Your task to perform on an android device: Add jbl charge 4 to the cart on ebay.com Image 0: 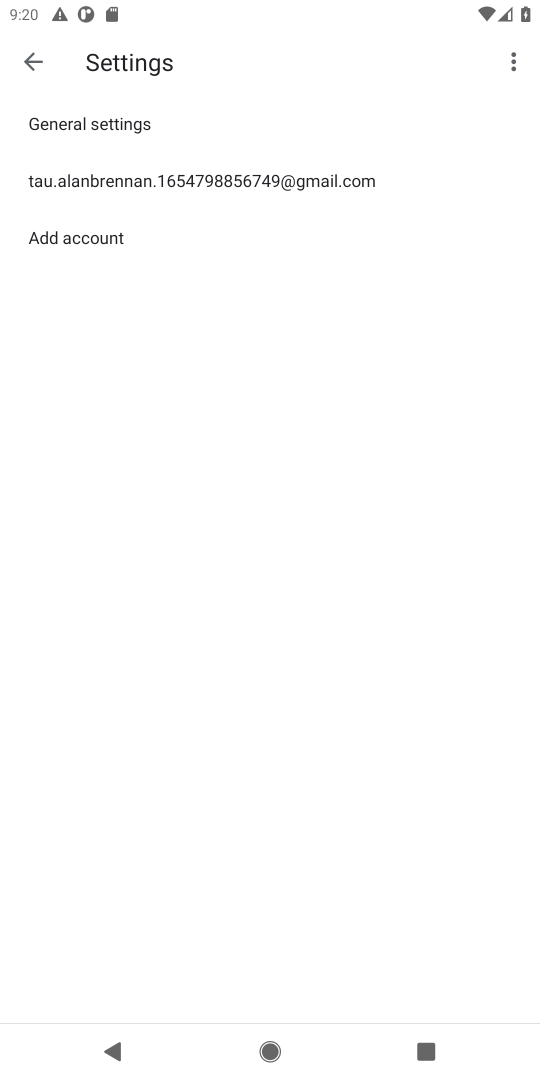
Step 0: press home button
Your task to perform on an android device: Add jbl charge 4 to the cart on ebay.com Image 1: 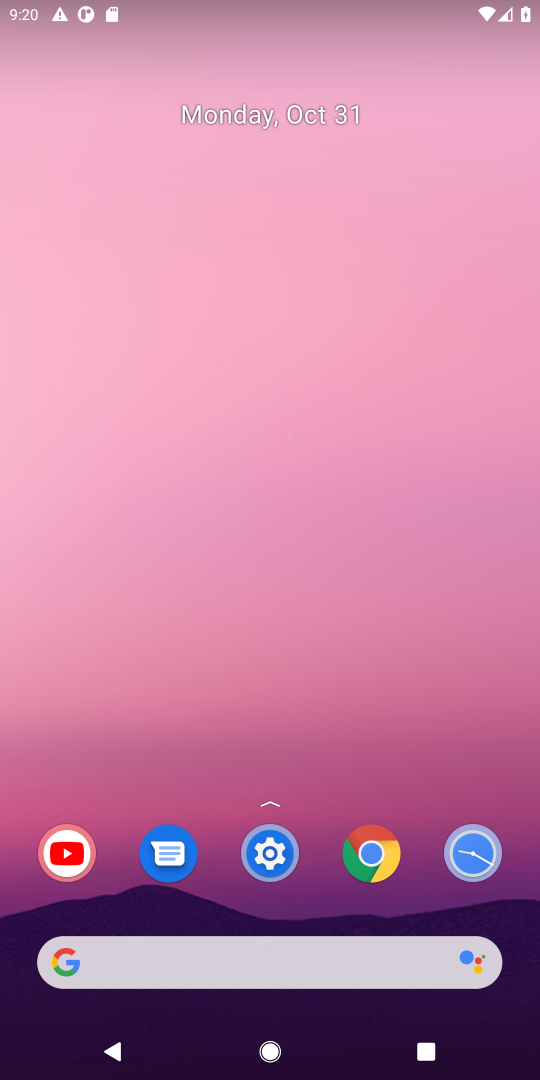
Step 1: click (283, 952)
Your task to perform on an android device: Add jbl charge 4 to the cart on ebay.com Image 2: 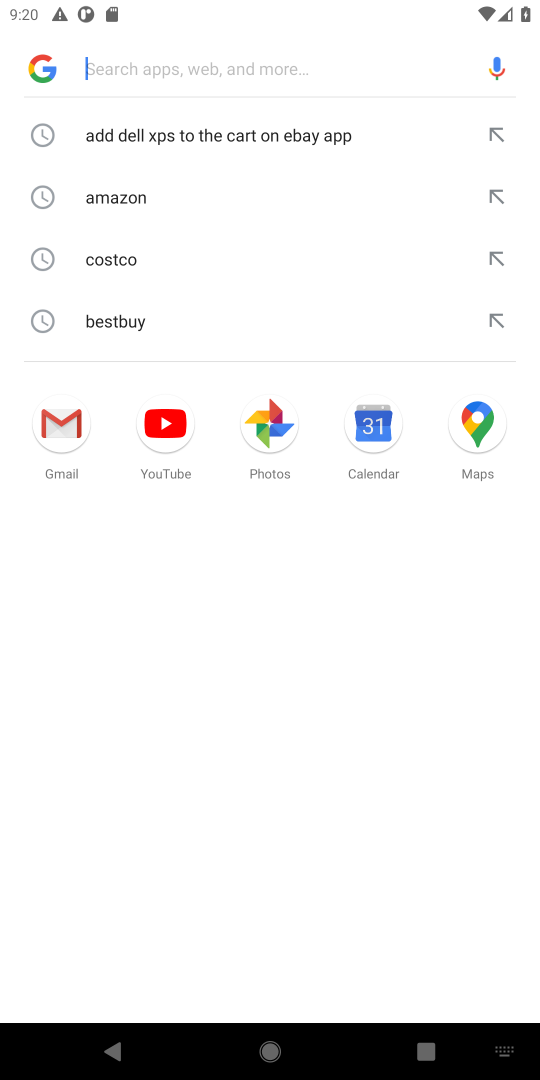
Step 2: type "ebay"
Your task to perform on an android device: Add jbl charge 4 to the cart on ebay.com Image 3: 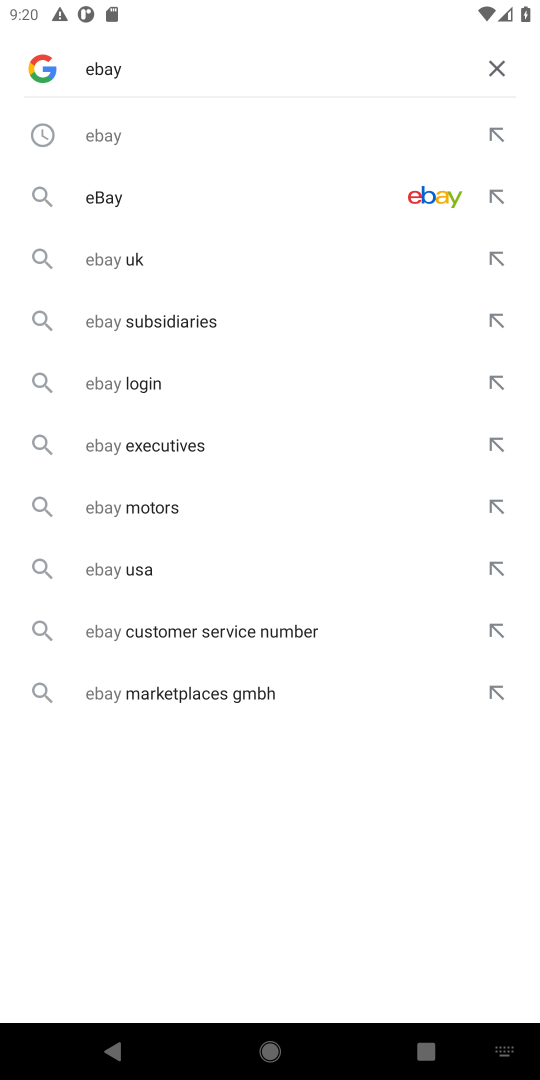
Step 3: click (113, 134)
Your task to perform on an android device: Add jbl charge 4 to the cart on ebay.com Image 4: 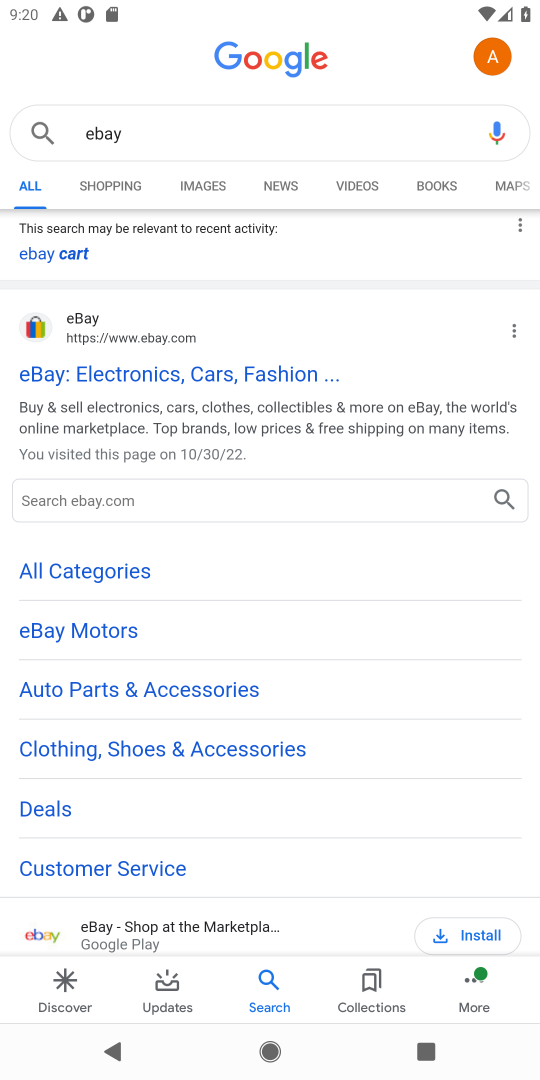
Step 4: click (93, 368)
Your task to perform on an android device: Add jbl charge 4 to the cart on ebay.com Image 5: 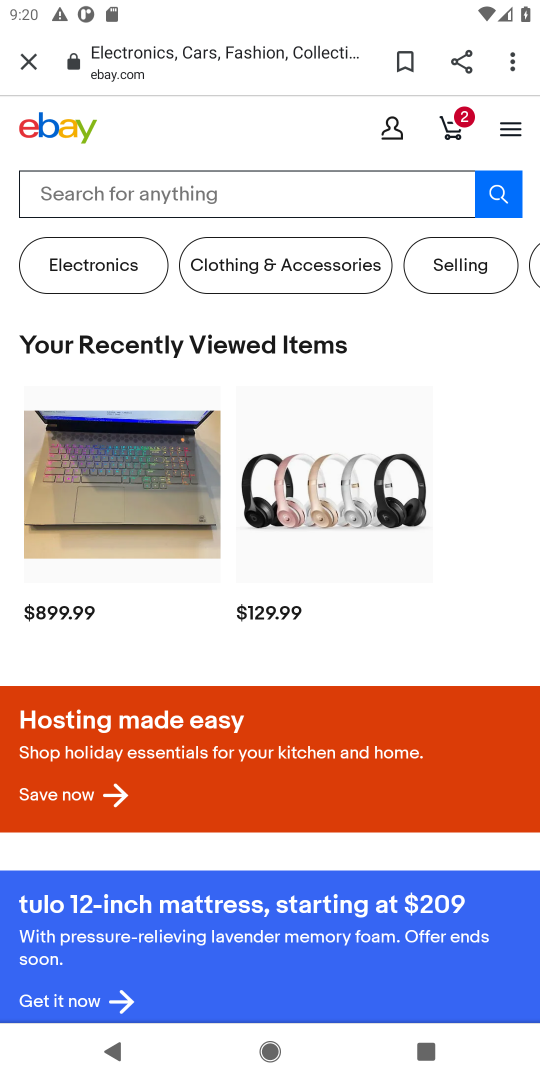
Step 5: click (170, 185)
Your task to perform on an android device: Add jbl charge 4 to the cart on ebay.com Image 6: 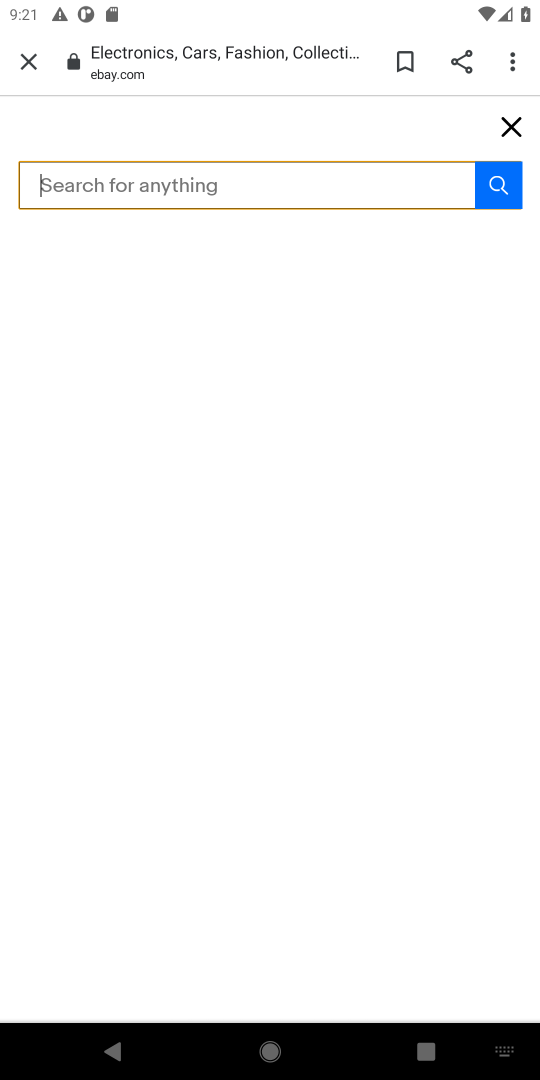
Step 6: type "jbl charger 4"
Your task to perform on an android device: Add jbl charge 4 to the cart on ebay.com Image 7: 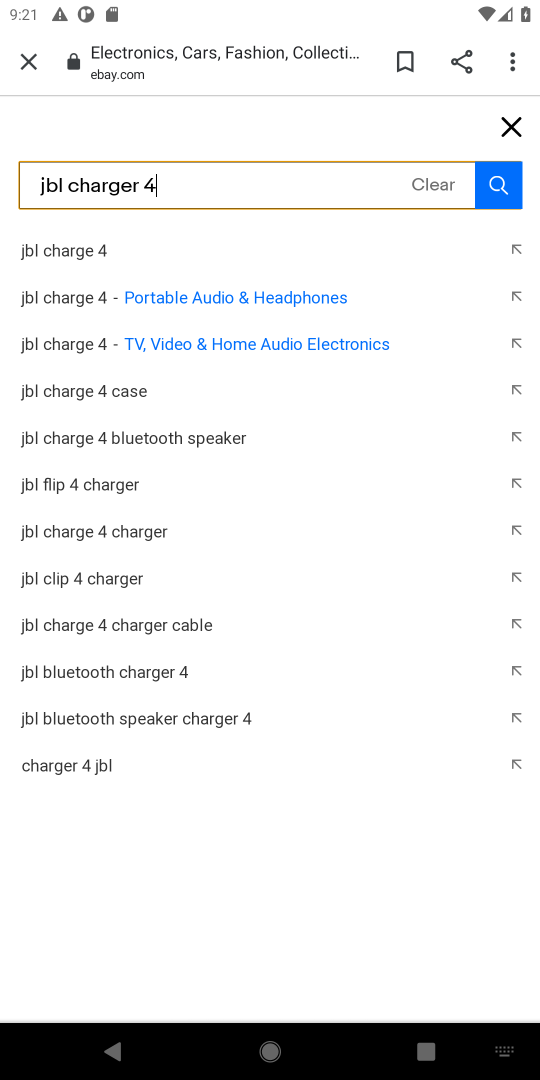
Step 7: click (101, 244)
Your task to perform on an android device: Add jbl charge 4 to the cart on ebay.com Image 8: 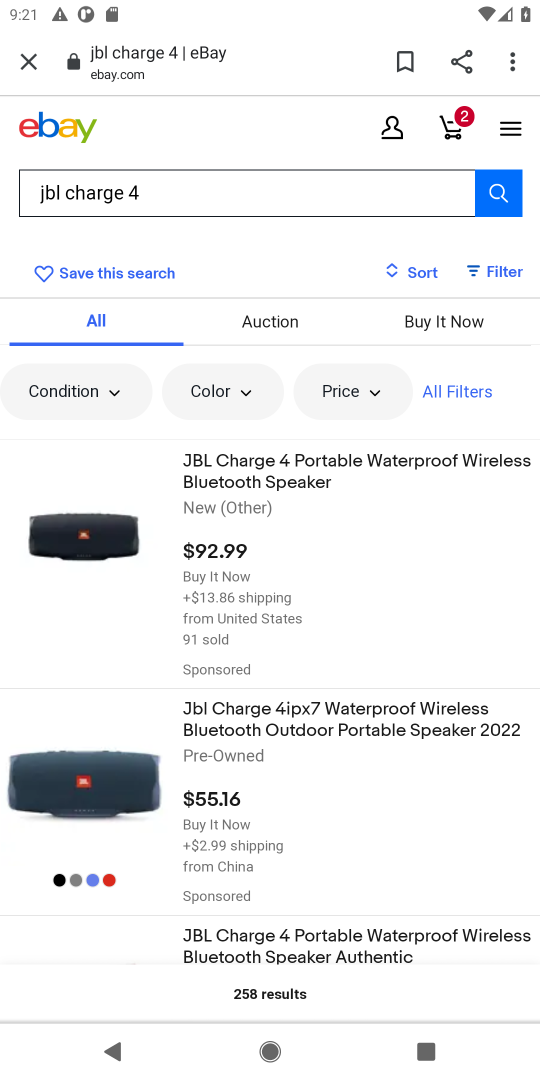
Step 8: click (291, 462)
Your task to perform on an android device: Add jbl charge 4 to the cart on ebay.com Image 9: 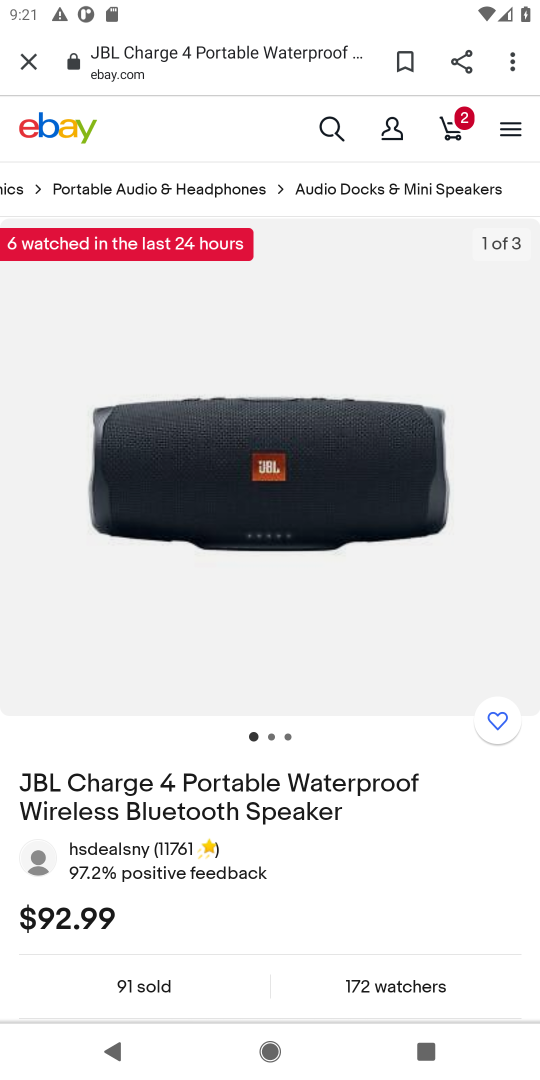
Step 9: drag from (423, 651) to (359, 310)
Your task to perform on an android device: Add jbl charge 4 to the cart on ebay.com Image 10: 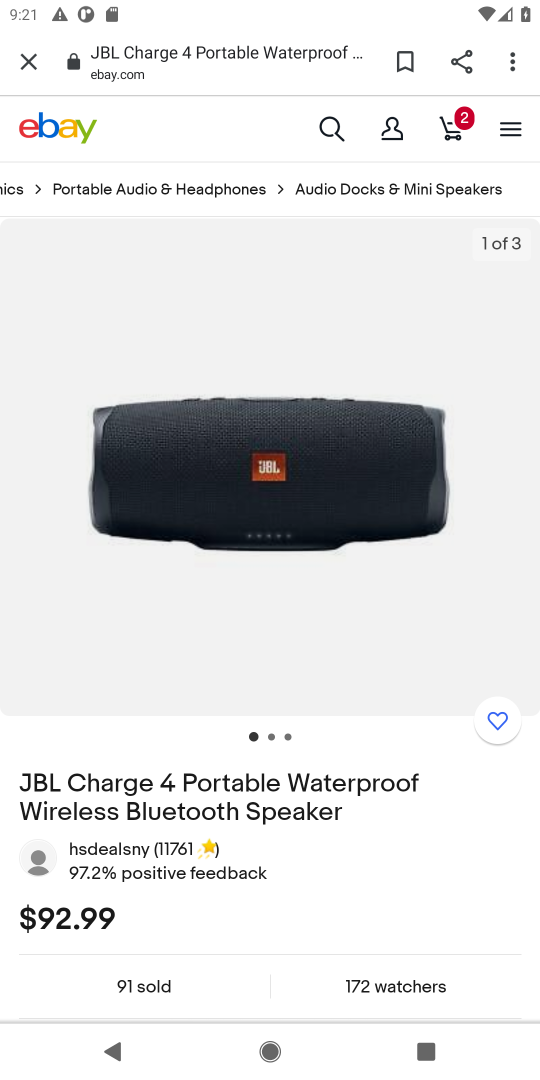
Step 10: drag from (357, 854) to (326, 510)
Your task to perform on an android device: Add jbl charge 4 to the cart on ebay.com Image 11: 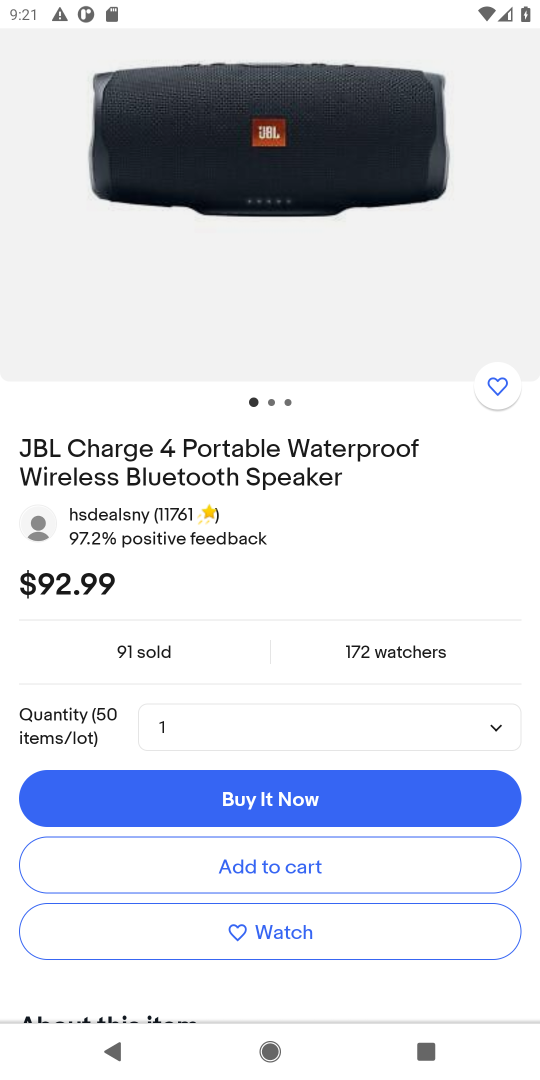
Step 11: click (312, 856)
Your task to perform on an android device: Add jbl charge 4 to the cart on ebay.com Image 12: 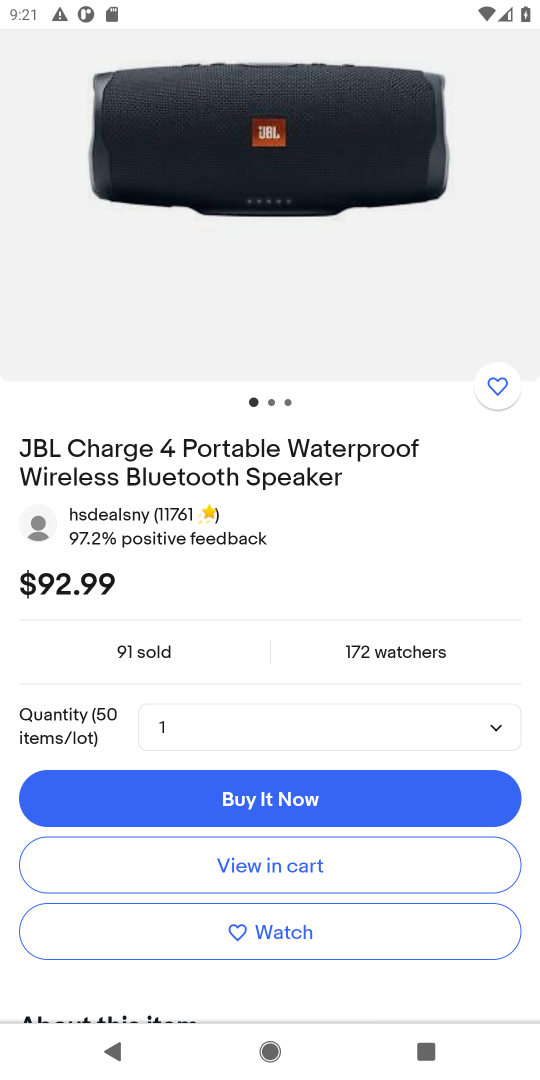
Step 12: task complete